Your task to perform on an android device: change the clock style Image 0: 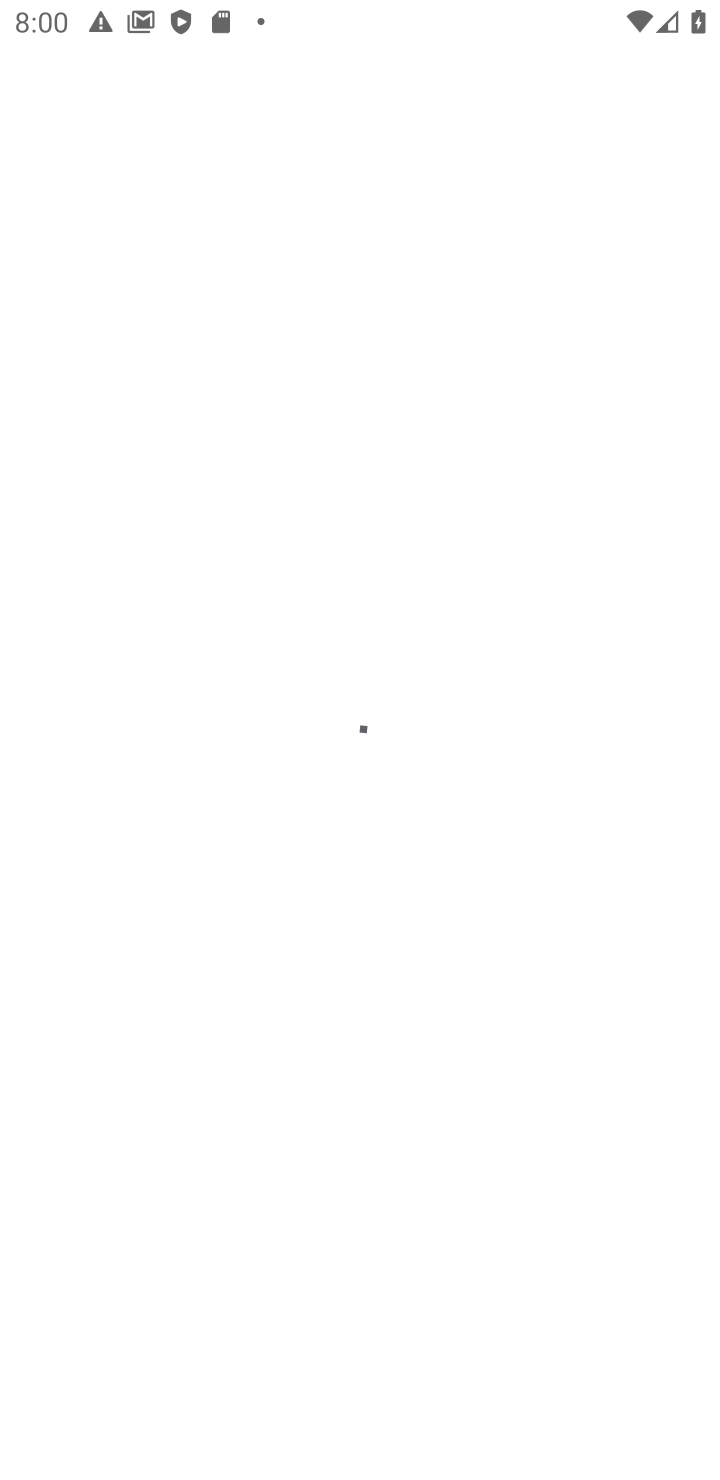
Step 0: press home button
Your task to perform on an android device: change the clock style Image 1: 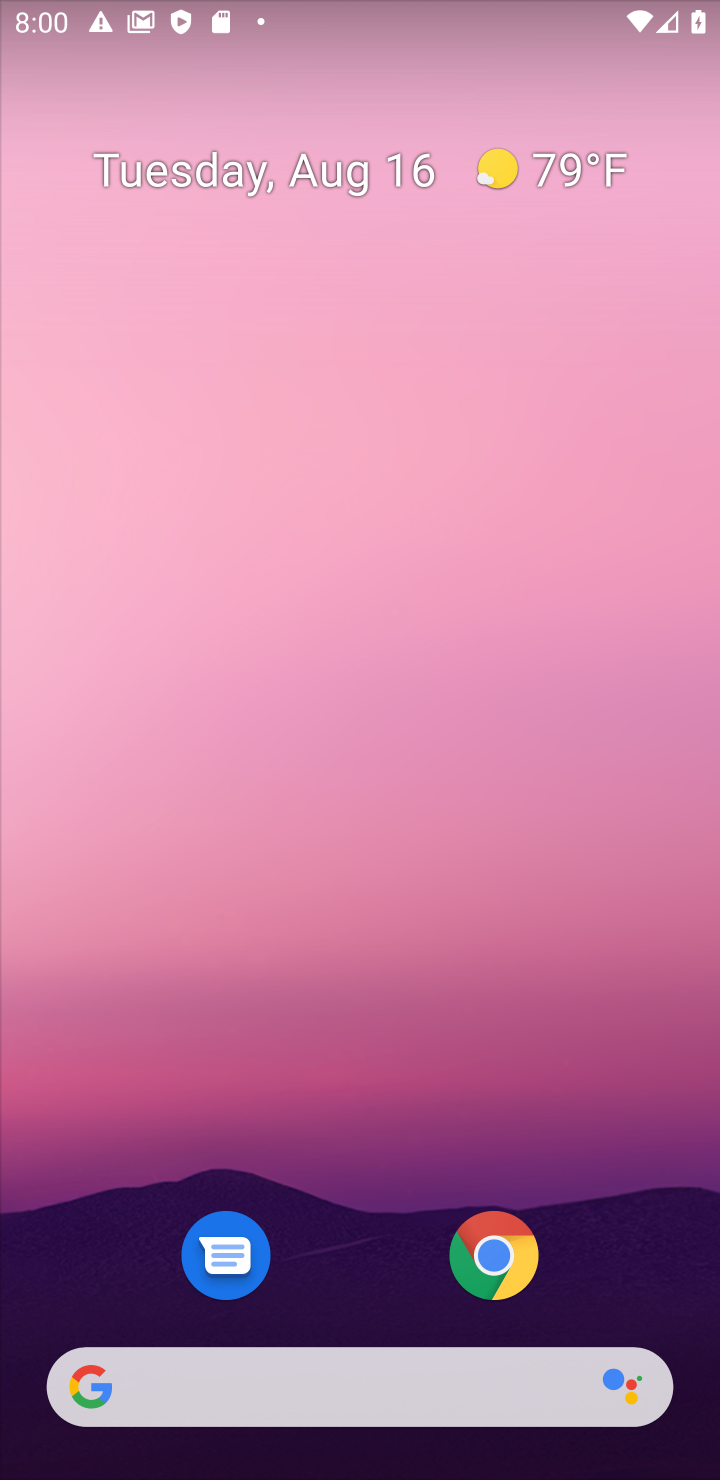
Step 1: drag from (337, 1388) to (268, 262)
Your task to perform on an android device: change the clock style Image 2: 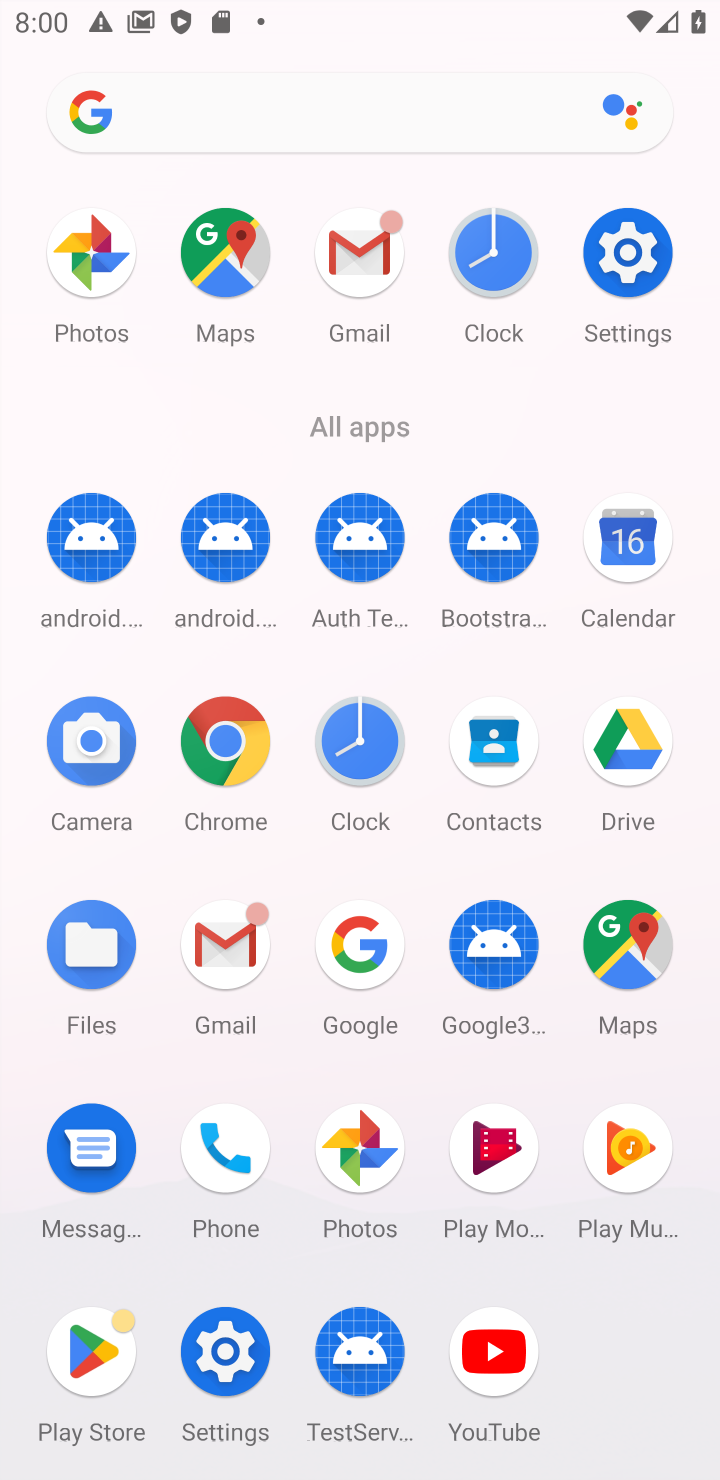
Step 2: click (355, 763)
Your task to perform on an android device: change the clock style Image 3: 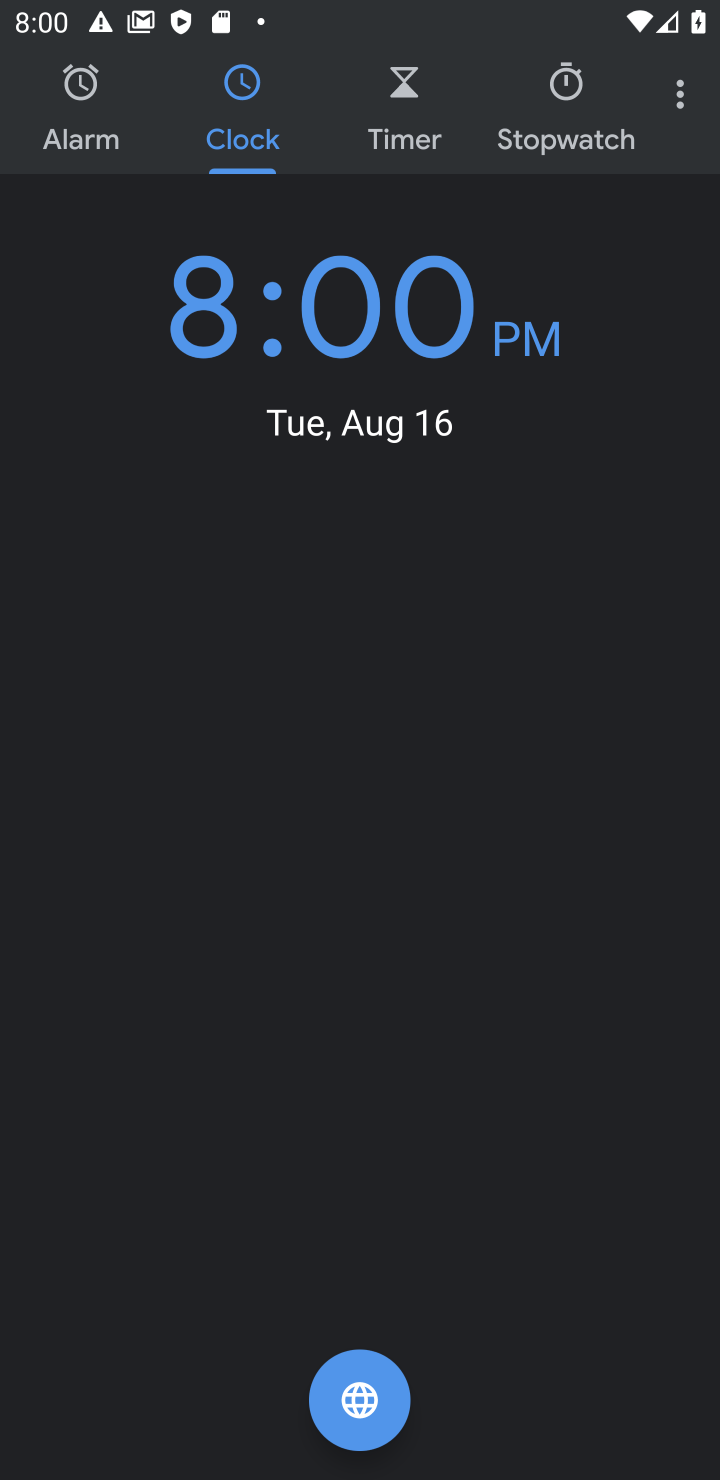
Step 3: click (687, 90)
Your task to perform on an android device: change the clock style Image 4: 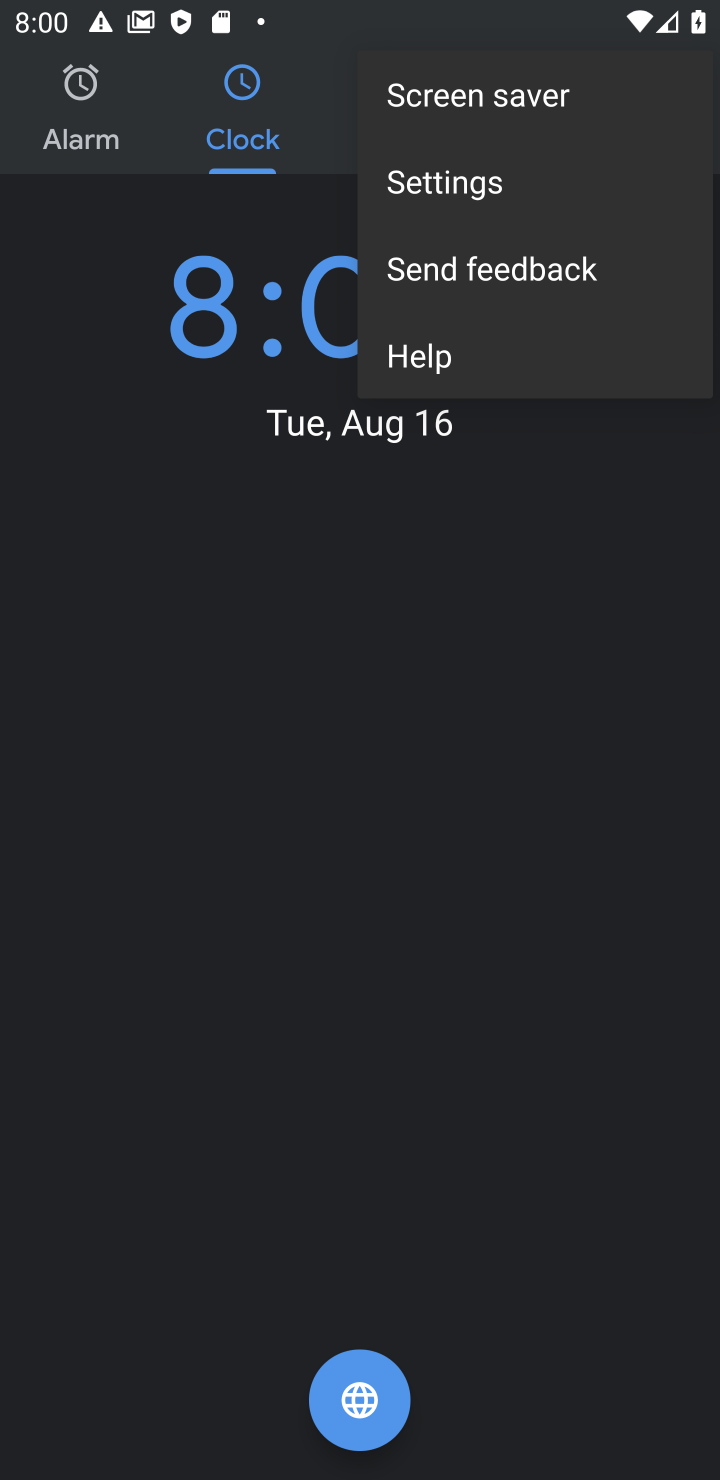
Step 4: click (485, 195)
Your task to perform on an android device: change the clock style Image 5: 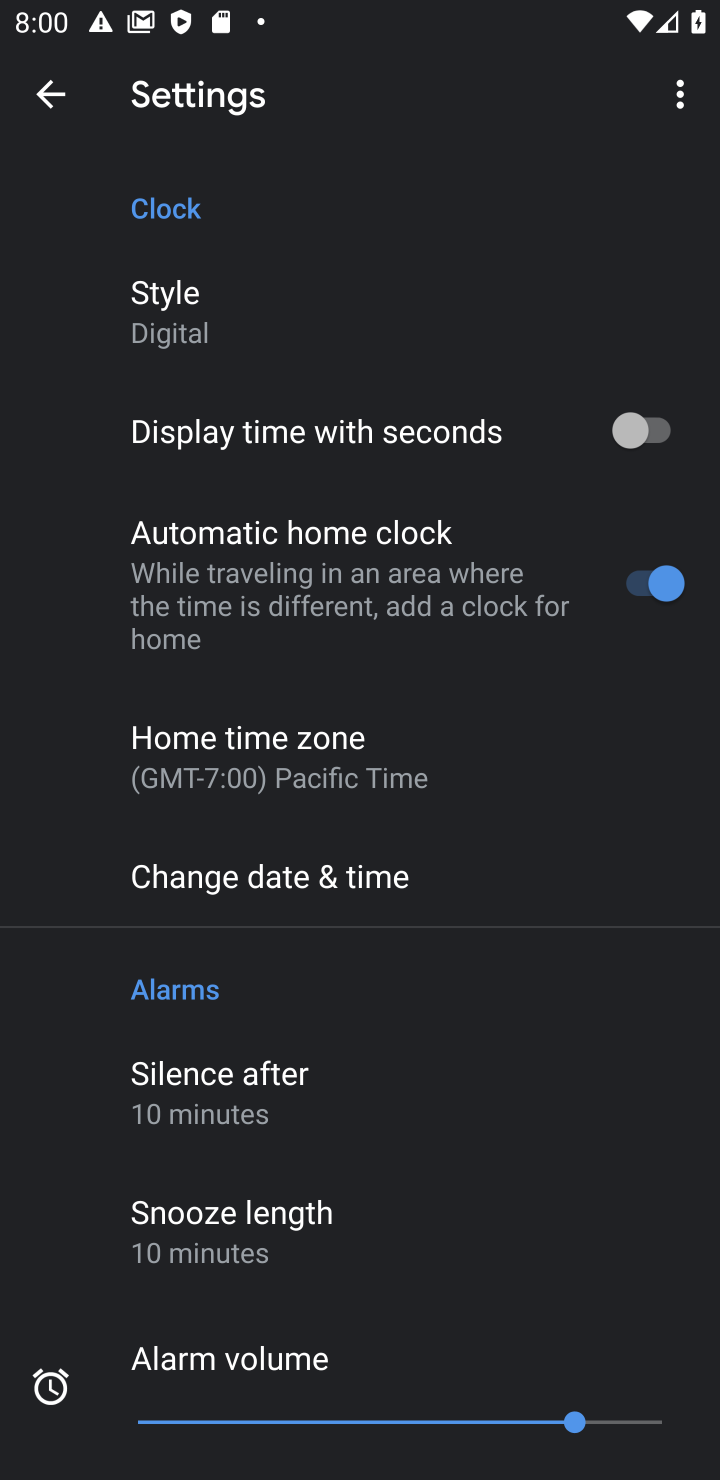
Step 5: click (214, 340)
Your task to perform on an android device: change the clock style Image 6: 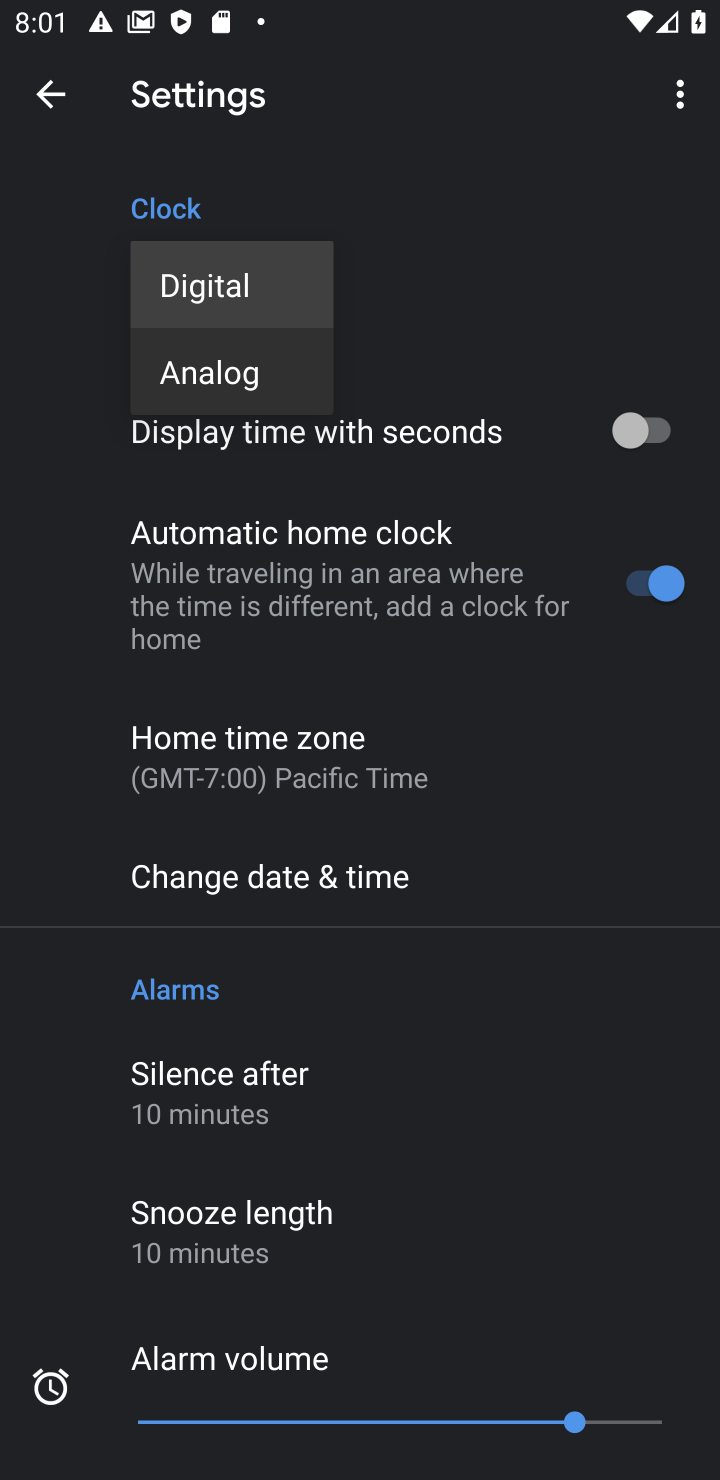
Step 6: click (231, 379)
Your task to perform on an android device: change the clock style Image 7: 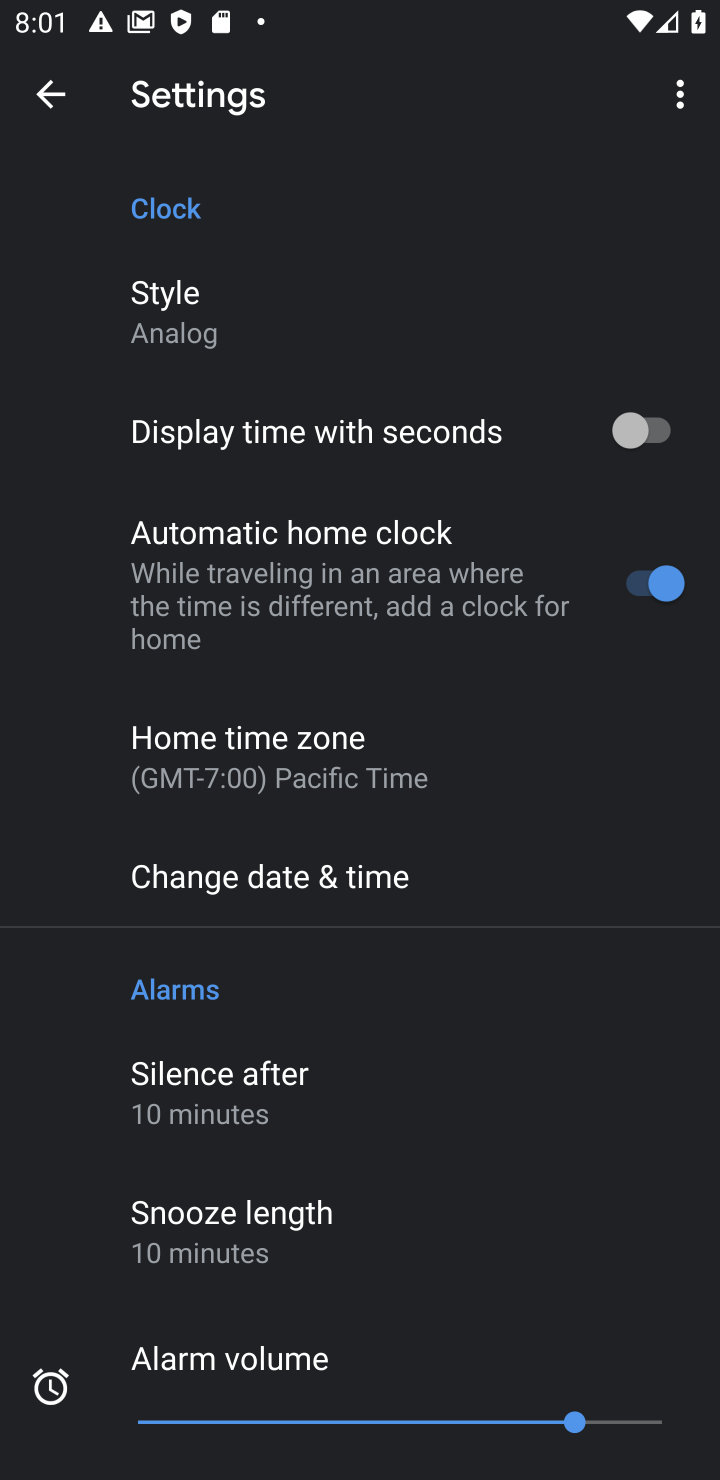
Step 7: task complete